Your task to perform on an android device: What's the weather? Image 0: 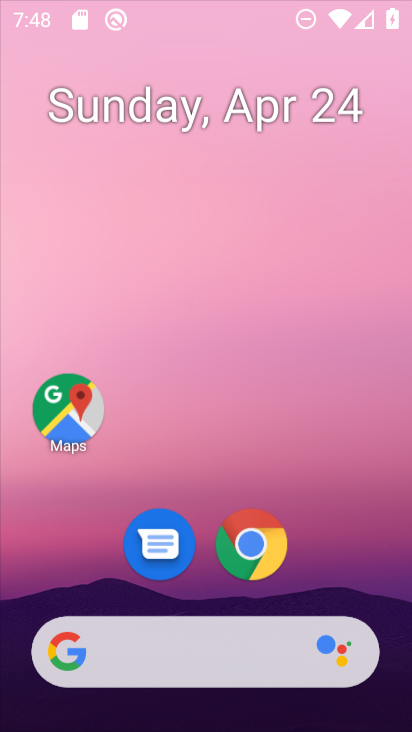
Step 0: click (330, 67)
Your task to perform on an android device: What's the weather? Image 1: 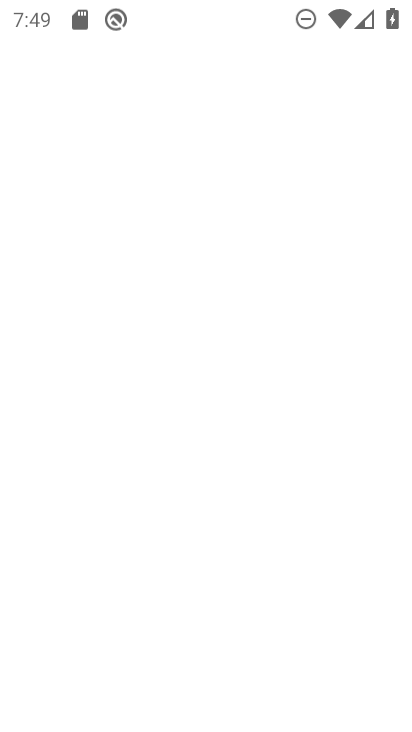
Step 1: press home button
Your task to perform on an android device: What's the weather? Image 2: 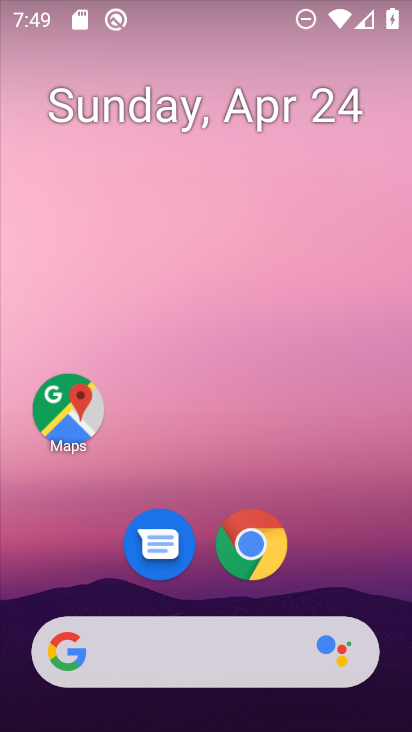
Step 2: drag from (0, 251) to (394, 277)
Your task to perform on an android device: What's the weather? Image 3: 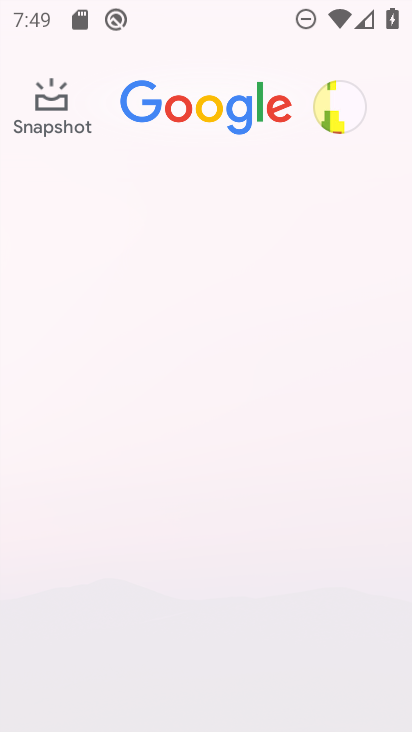
Step 3: drag from (218, 166) to (222, 612)
Your task to perform on an android device: What's the weather? Image 4: 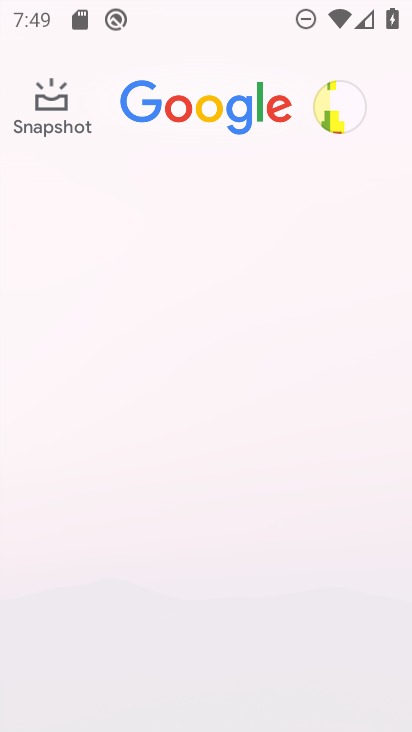
Step 4: drag from (28, 424) to (9, 455)
Your task to perform on an android device: What's the weather? Image 5: 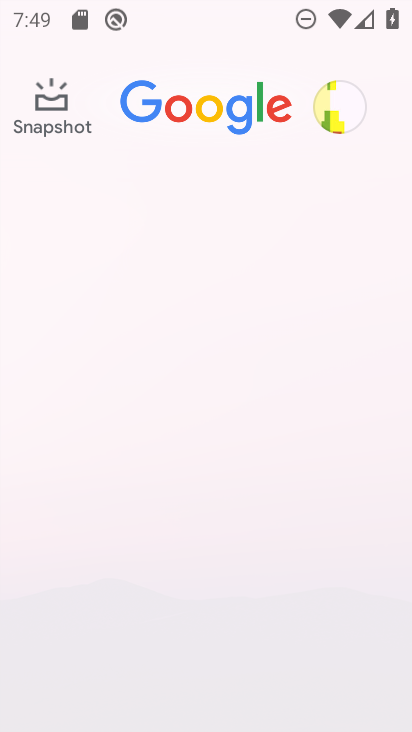
Step 5: drag from (390, 254) to (70, 249)
Your task to perform on an android device: What's the weather? Image 6: 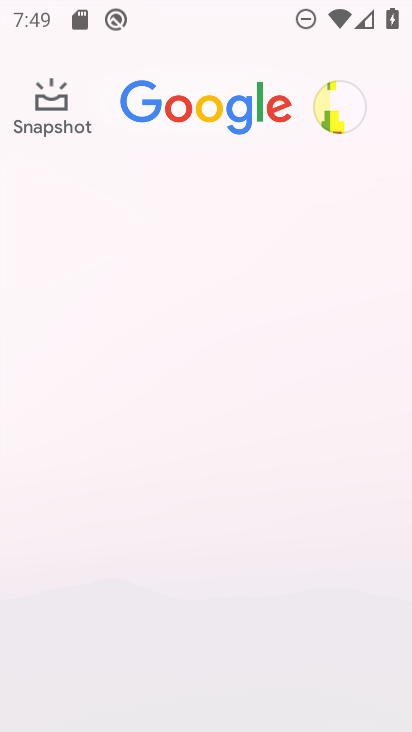
Step 6: press home button
Your task to perform on an android device: What's the weather? Image 7: 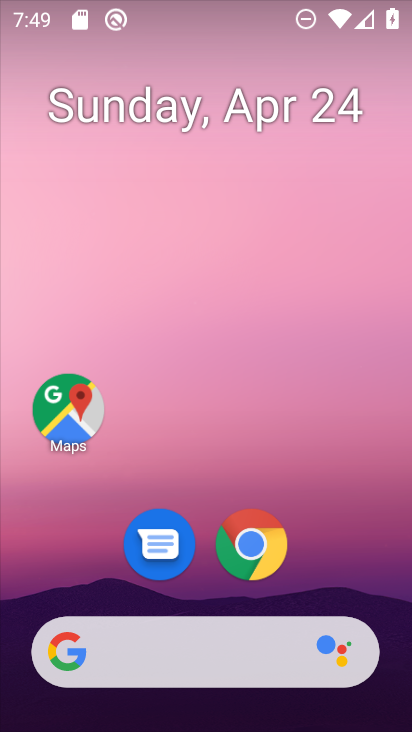
Step 7: drag from (203, 288) to (235, 147)
Your task to perform on an android device: What's the weather? Image 8: 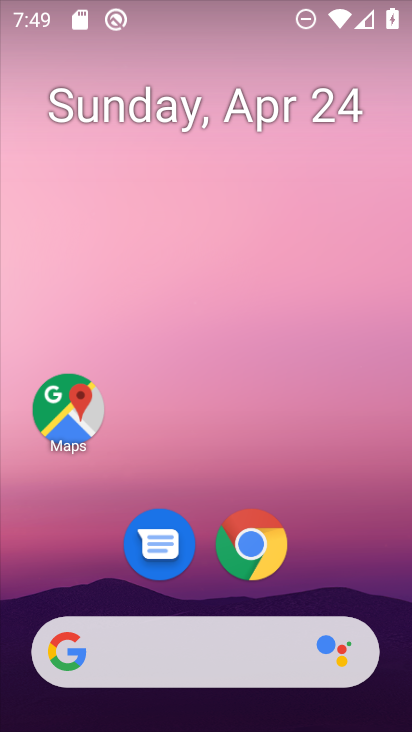
Step 8: drag from (171, 642) to (239, 55)
Your task to perform on an android device: What's the weather? Image 9: 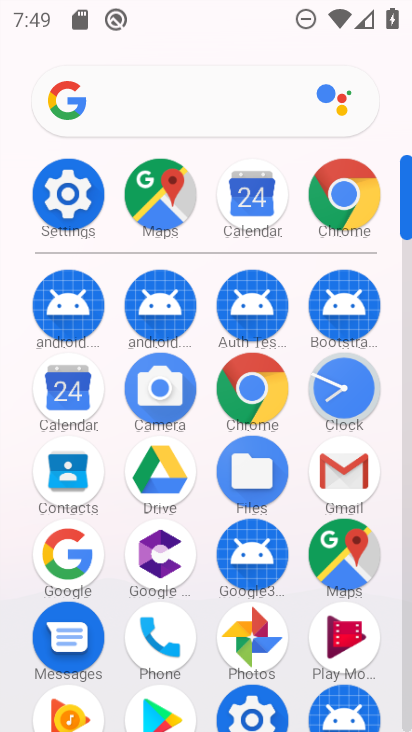
Step 9: click (79, 566)
Your task to perform on an android device: What's the weather? Image 10: 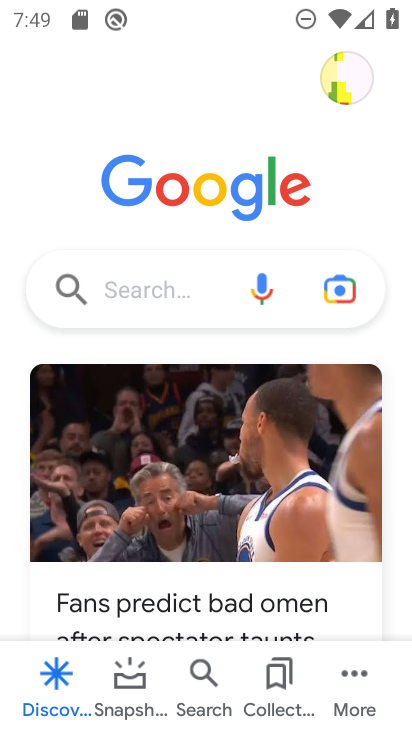
Step 10: click (154, 289)
Your task to perform on an android device: What's the weather? Image 11: 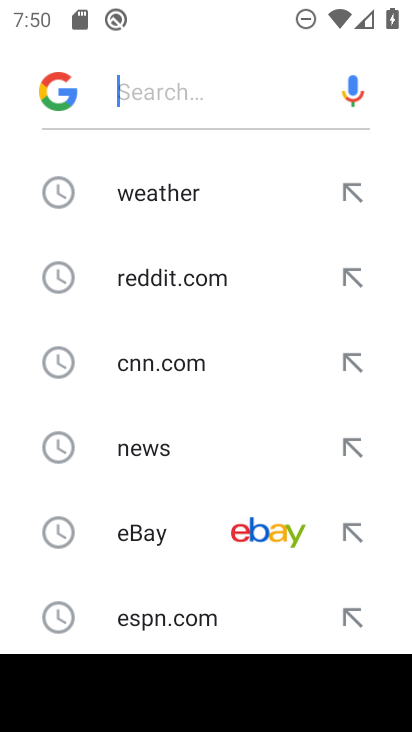
Step 11: click (170, 197)
Your task to perform on an android device: What's the weather? Image 12: 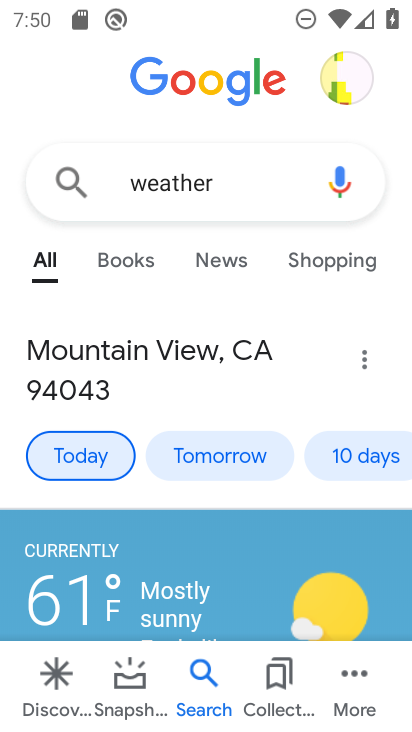
Step 12: task complete